Your task to perform on an android device: turn on javascript in the chrome app Image 0: 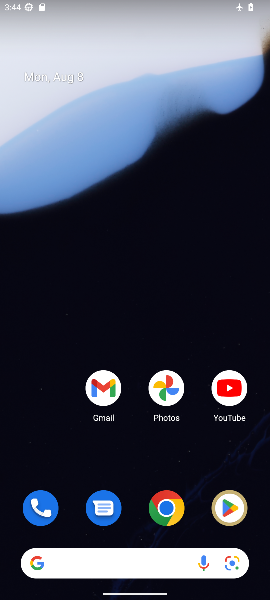
Step 0: click (167, 507)
Your task to perform on an android device: turn on javascript in the chrome app Image 1: 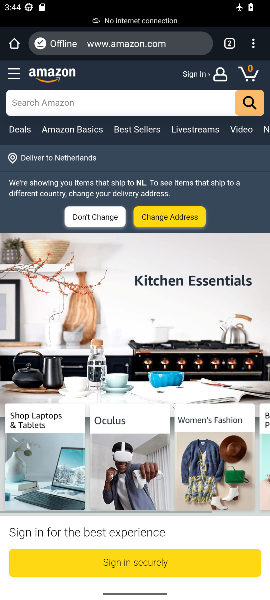
Step 1: click (256, 47)
Your task to perform on an android device: turn on javascript in the chrome app Image 2: 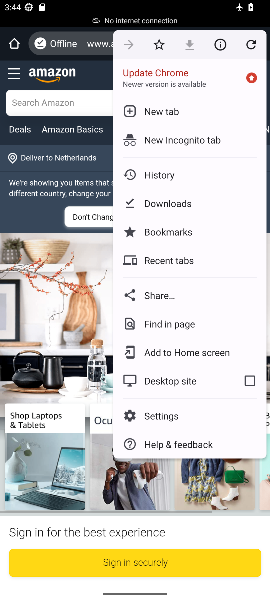
Step 2: click (160, 415)
Your task to perform on an android device: turn on javascript in the chrome app Image 3: 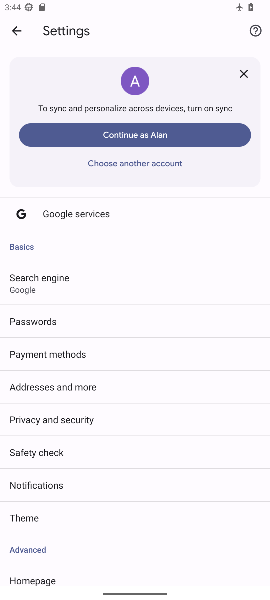
Step 3: drag from (147, 523) to (102, 241)
Your task to perform on an android device: turn on javascript in the chrome app Image 4: 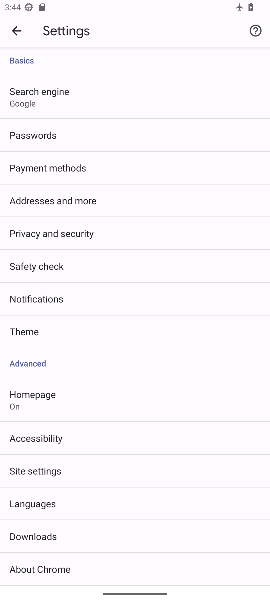
Step 4: click (46, 470)
Your task to perform on an android device: turn on javascript in the chrome app Image 5: 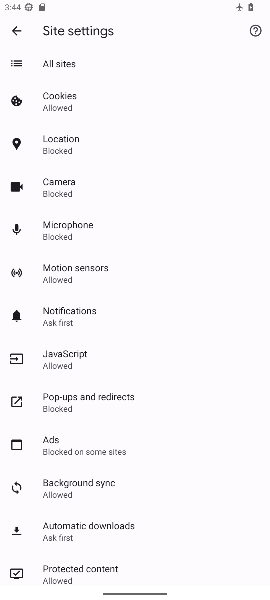
Step 5: click (73, 350)
Your task to perform on an android device: turn on javascript in the chrome app Image 6: 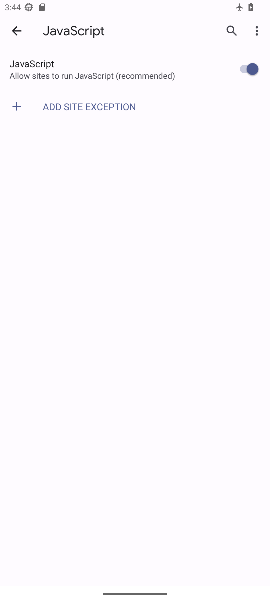
Step 6: task complete